Your task to perform on an android device: turn off improve location accuracy Image 0: 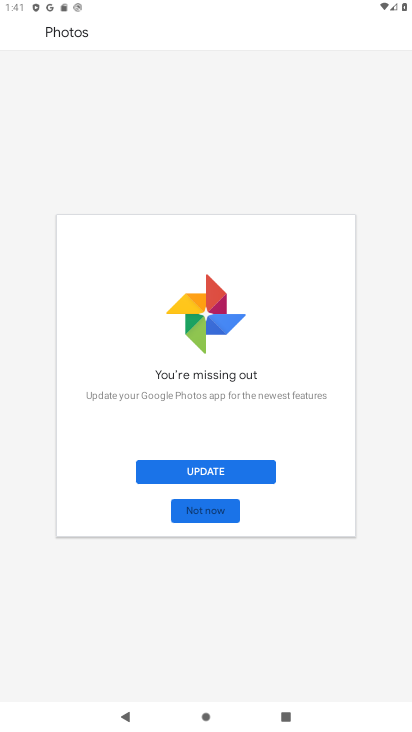
Step 0: press home button
Your task to perform on an android device: turn off improve location accuracy Image 1: 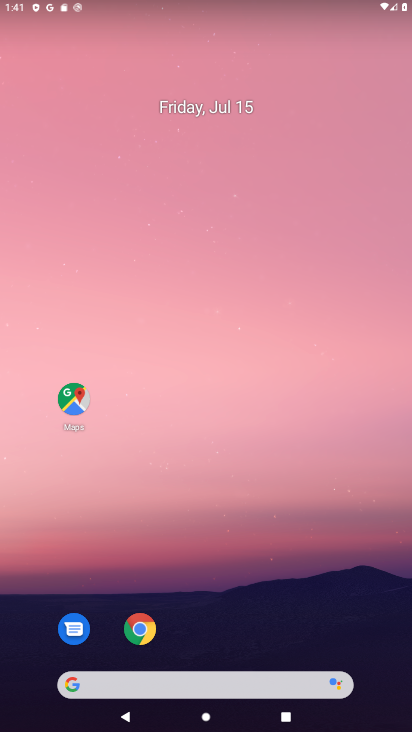
Step 1: drag from (190, 642) to (226, 46)
Your task to perform on an android device: turn off improve location accuracy Image 2: 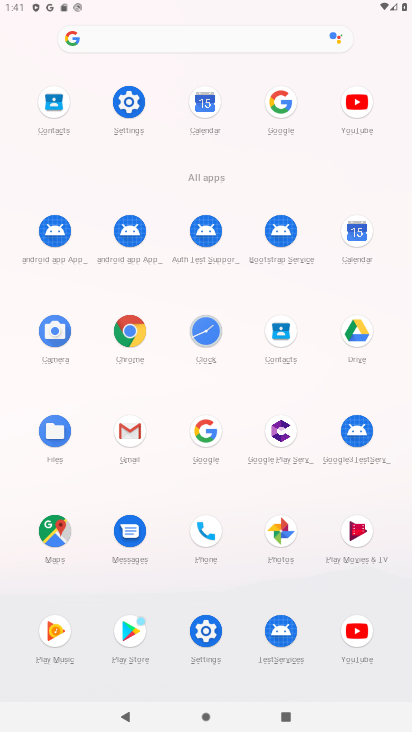
Step 2: click (206, 654)
Your task to perform on an android device: turn off improve location accuracy Image 3: 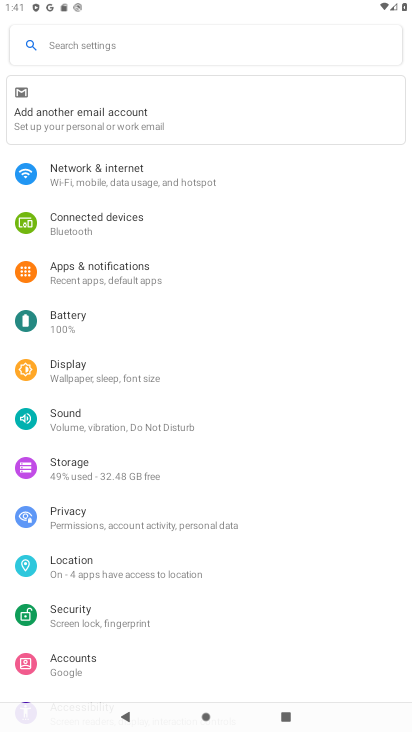
Step 3: click (108, 570)
Your task to perform on an android device: turn off improve location accuracy Image 4: 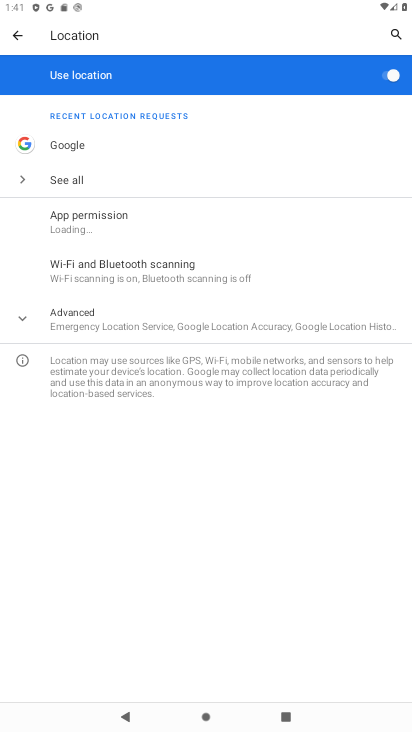
Step 4: click (101, 324)
Your task to perform on an android device: turn off improve location accuracy Image 5: 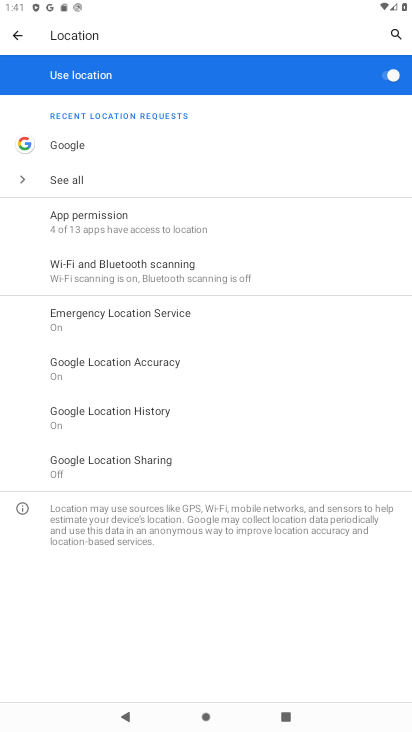
Step 5: click (97, 361)
Your task to perform on an android device: turn off improve location accuracy Image 6: 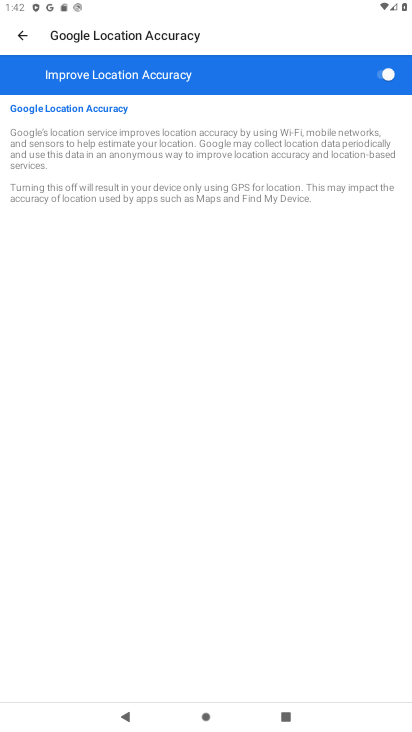
Step 6: click (375, 69)
Your task to perform on an android device: turn off improve location accuracy Image 7: 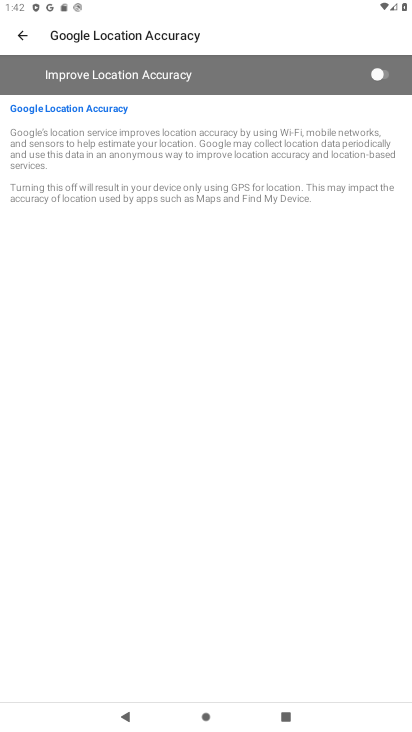
Step 7: task complete